Your task to perform on an android device: Open the phone app and click the voicemail tab. Image 0: 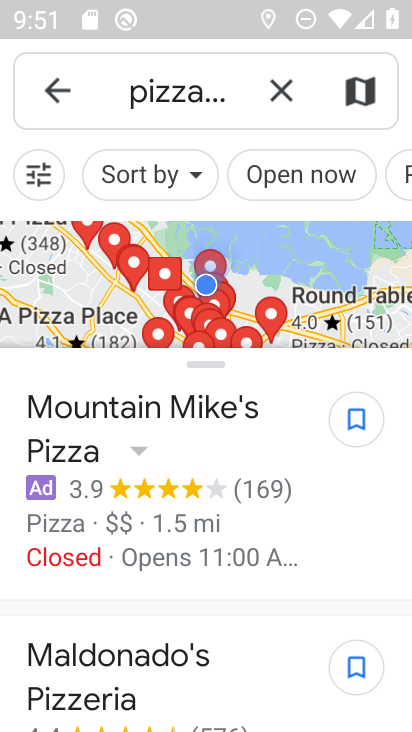
Step 0: press home button
Your task to perform on an android device: Open the phone app and click the voicemail tab. Image 1: 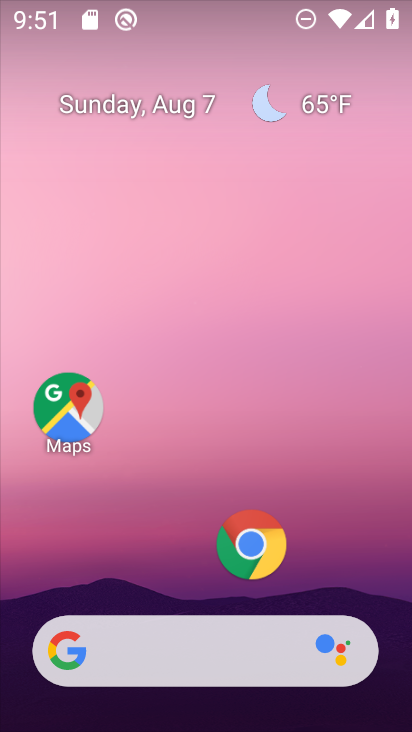
Step 1: drag from (201, 590) to (225, 18)
Your task to perform on an android device: Open the phone app and click the voicemail tab. Image 2: 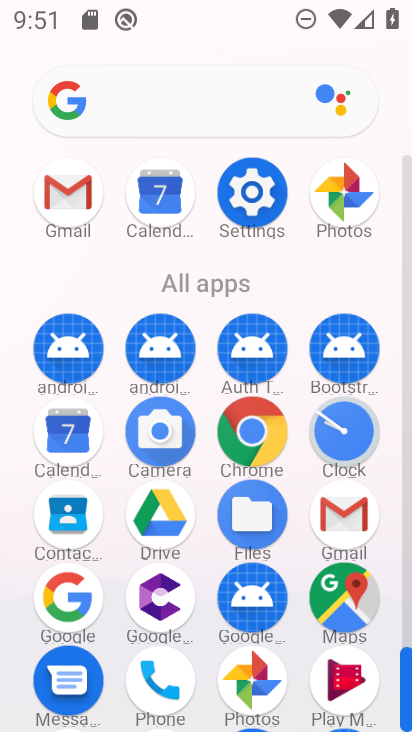
Step 2: click (144, 683)
Your task to perform on an android device: Open the phone app and click the voicemail tab. Image 3: 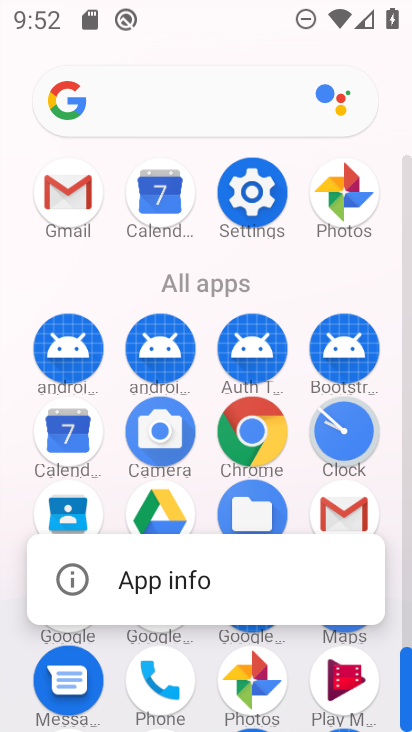
Step 3: click (184, 674)
Your task to perform on an android device: Open the phone app and click the voicemail tab. Image 4: 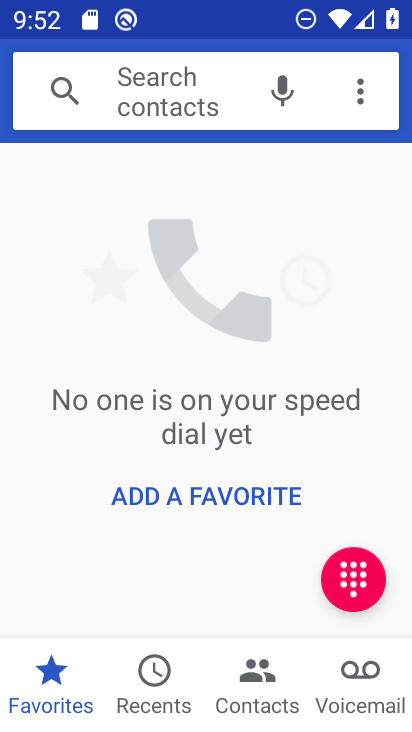
Step 4: click (391, 688)
Your task to perform on an android device: Open the phone app and click the voicemail tab. Image 5: 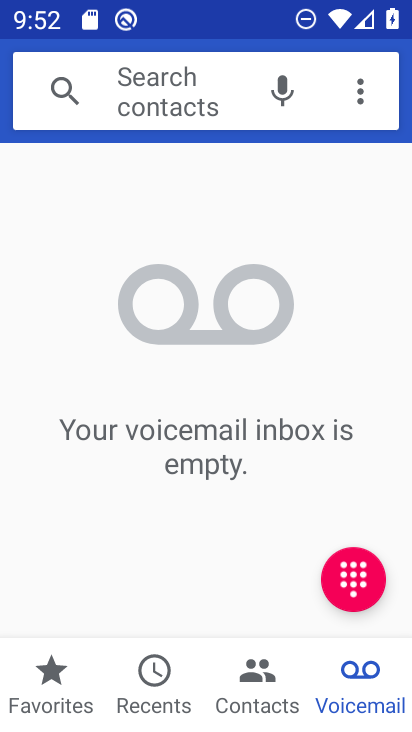
Step 5: task complete